Your task to perform on an android device: Search for Italian restaurants on Maps Image 0: 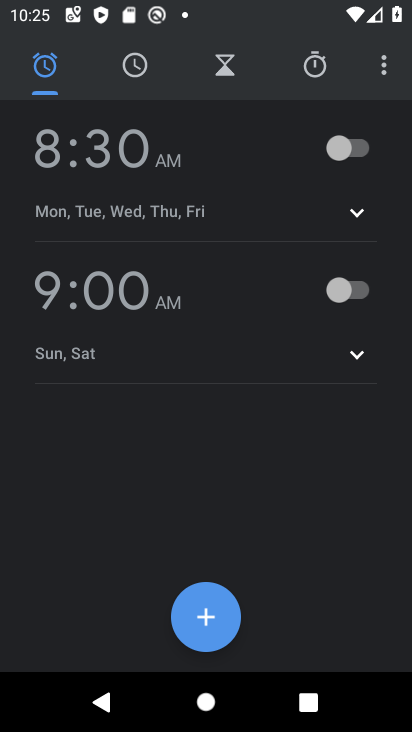
Step 0: press home button
Your task to perform on an android device: Search for Italian restaurants on Maps Image 1: 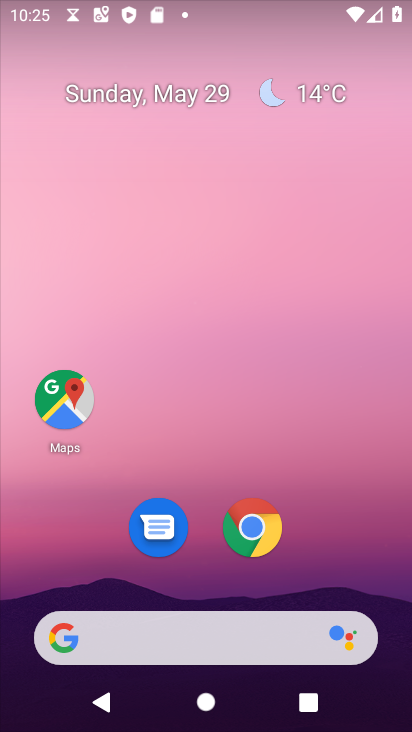
Step 1: click (71, 404)
Your task to perform on an android device: Search for Italian restaurants on Maps Image 2: 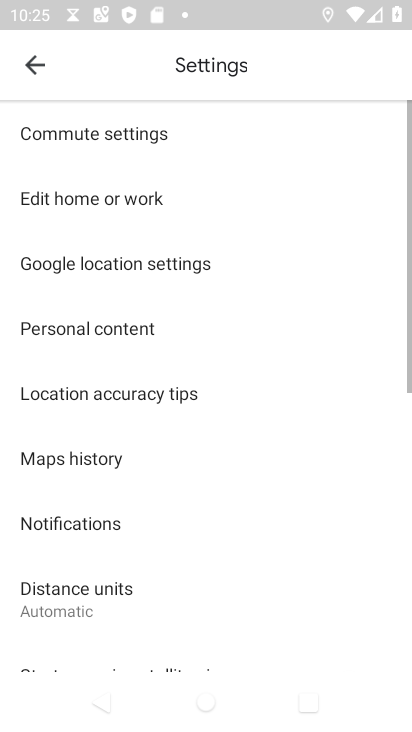
Step 2: click (35, 63)
Your task to perform on an android device: Search for Italian restaurants on Maps Image 3: 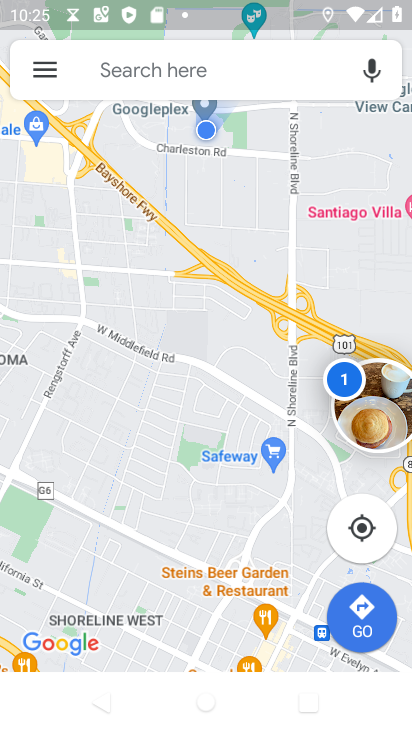
Step 3: drag from (378, 390) to (245, 700)
Your task to perform on an android device: Search for Italian restaurants on Maps Image 4: 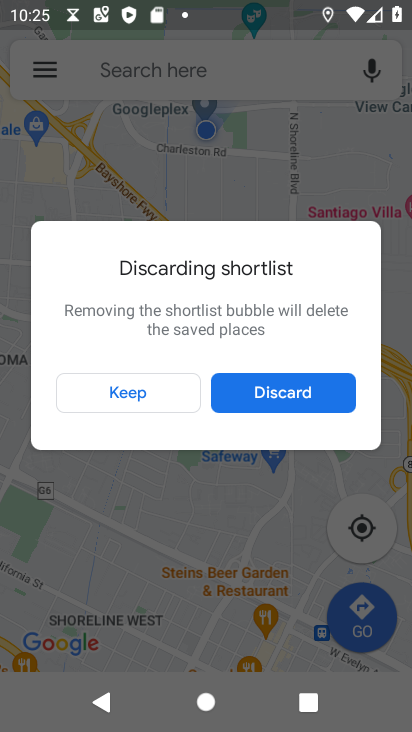
Step 4: click (278, 392)
Your task to perform on an android device: Search for Italian restaurants on Maps Image 5: 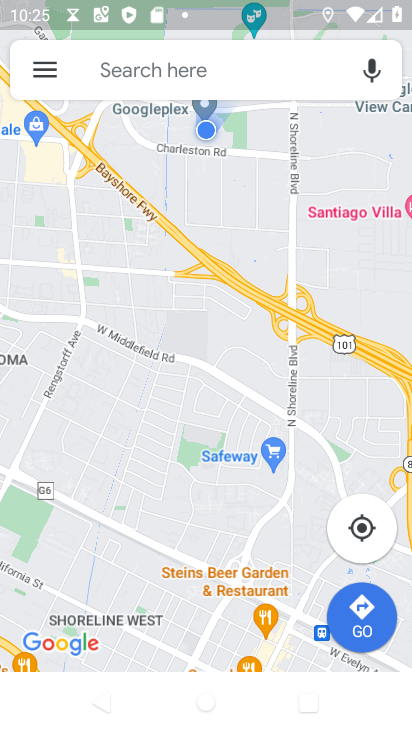
Step 5: click (201, 70)
Your task to perform on an android device: Search for Italian restaurants on Maps Image 6: 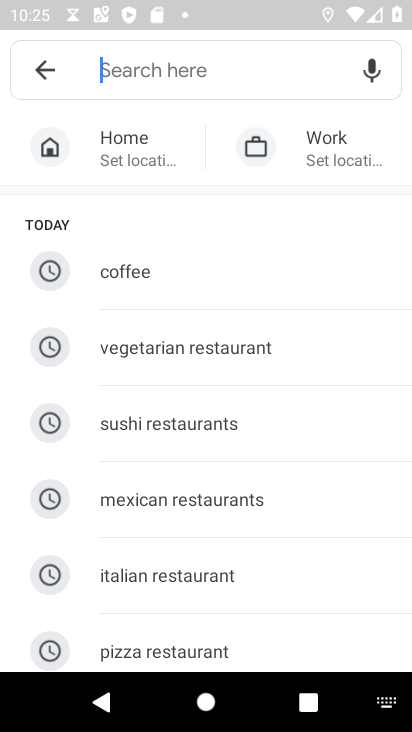
Step 6: click (191, 576)
Your task to perform on an android device: Search for Italian restaurants on Maps Image 7: 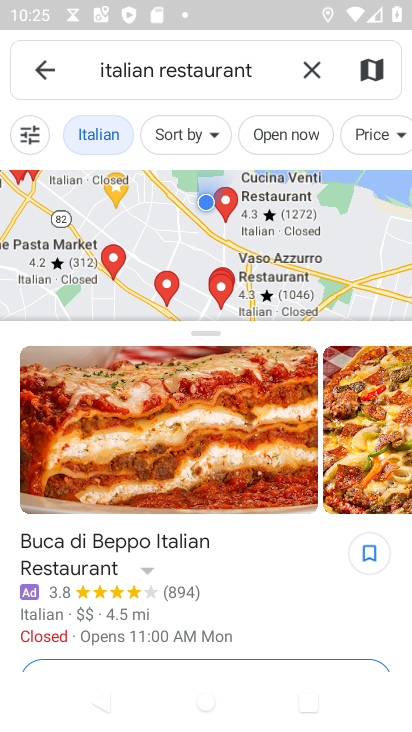
Step 7: task complete